Your task to perform on an android device: Open Google Chrome Image 0: 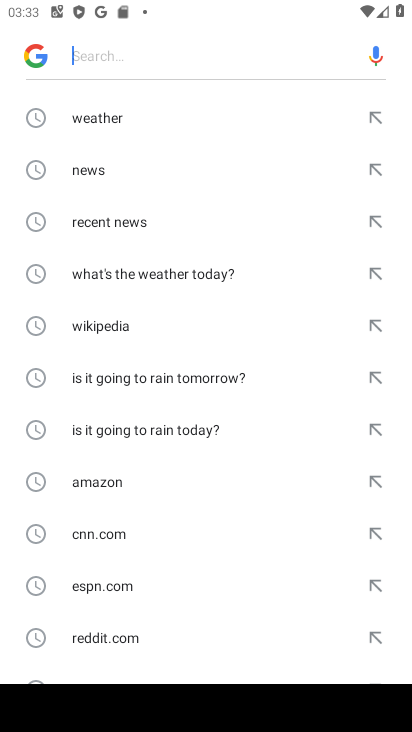
Step 0: press home button
Your task to perform on an android device: Open Google Chrome Image 1: 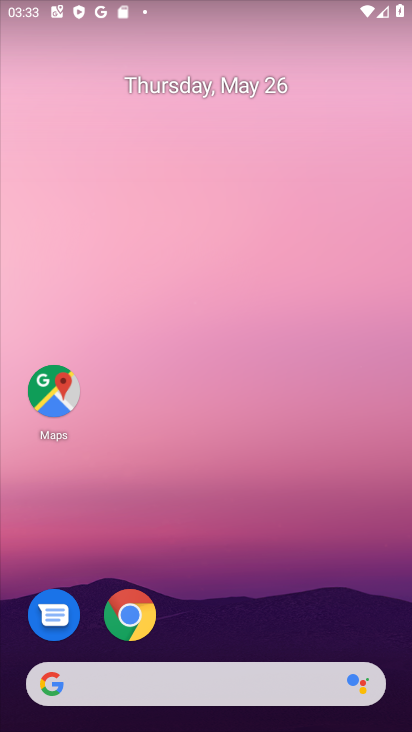
Step 1: drag from (183, 635) to (206, 0)
Your task to perform on an android device: Open Google Chrome Image 2: 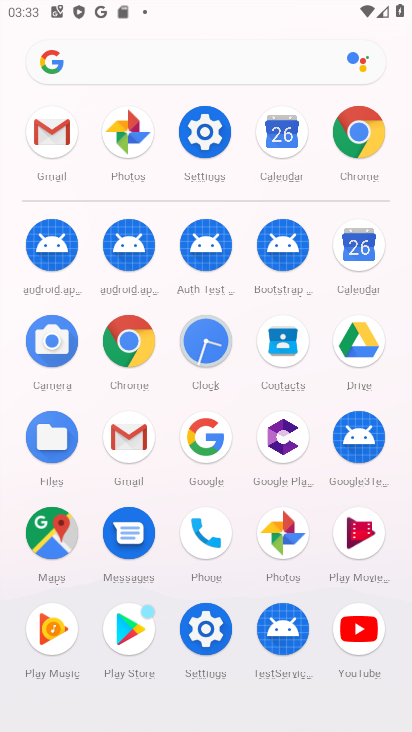
Step 2: click (115, 360)
Your task to perform on an android device: Open Google Chrome Image 3: 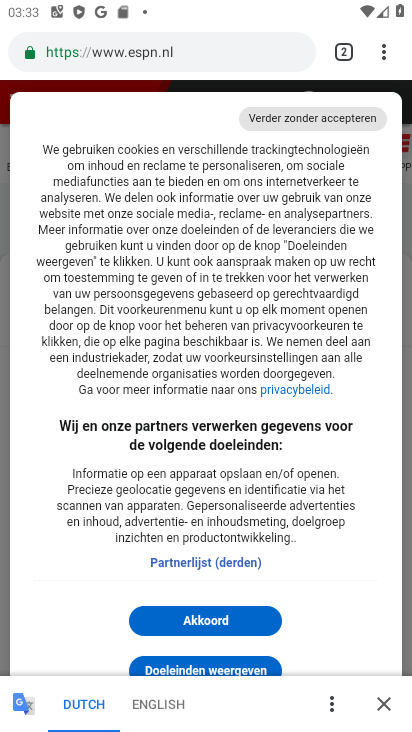
Step 3: task complete